Your task to perform on an android device: search for starred emails in the gmail app Image 0: 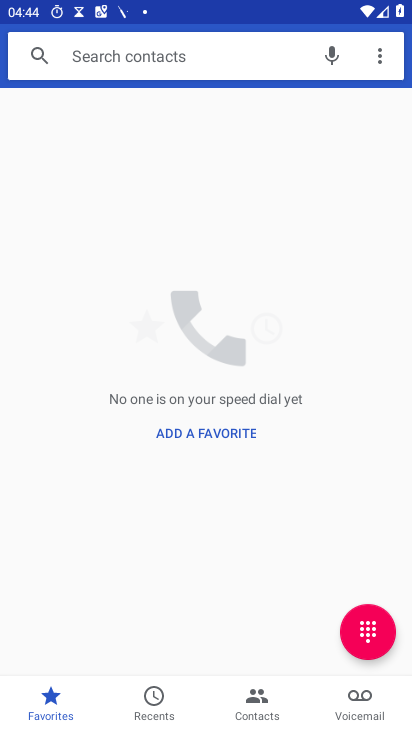
Step 0: press home button
Your task to perform on an android device: search for starred emails in the gmail app Image 1: 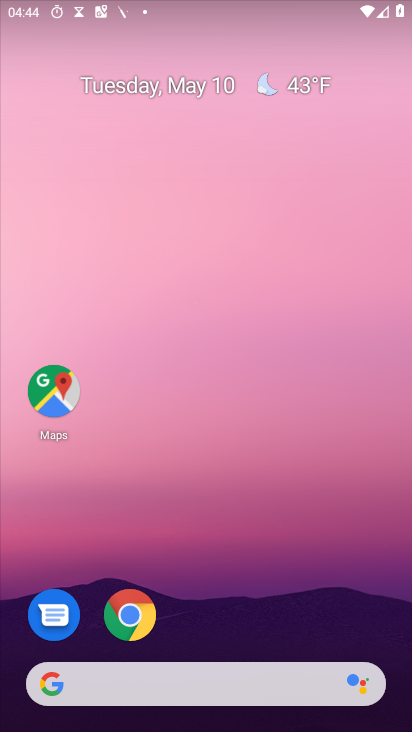
Step 1: drag from (301, 653) to (328, 22)
Your task to perform on an android device: search for starred emails in the gmail app Image 2: 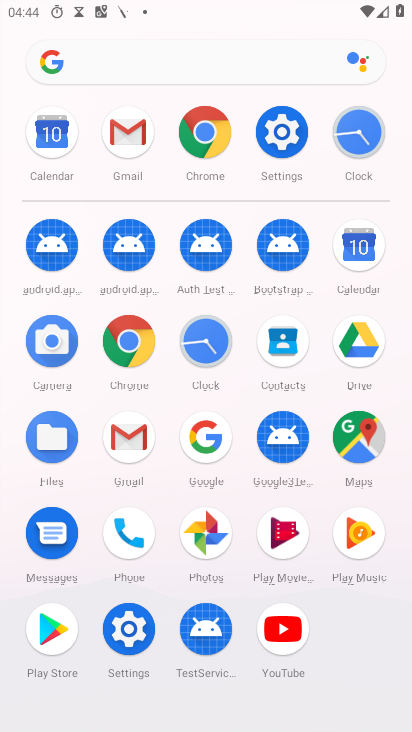
Step 2: click (143, 440)
Your task to perform on an android device: search for starred emails in the gmail app Image 3: 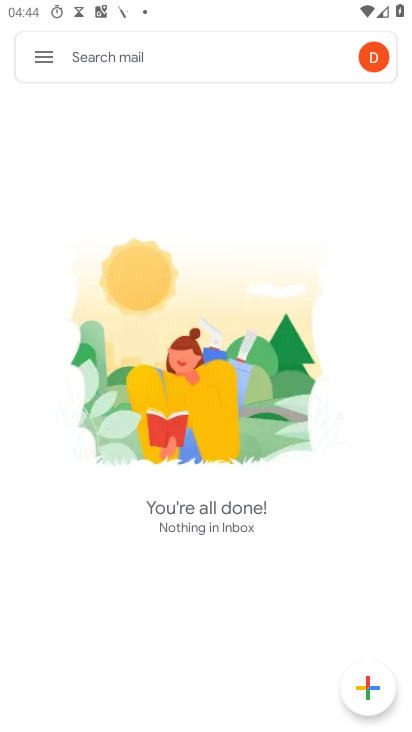
Step 3: click (24, 53)
Your task to perform on an android device: search for starred emails in the gmail app Image 4: 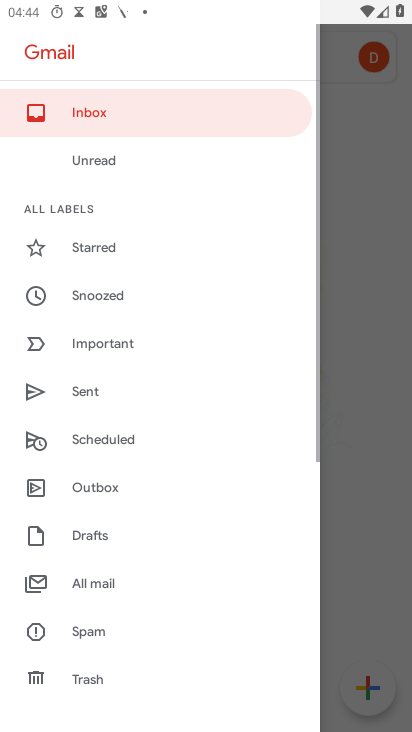
Step 4: click (121, 256)
Your task to perform on an android device: search for starred emails in the gmail app Image 5: 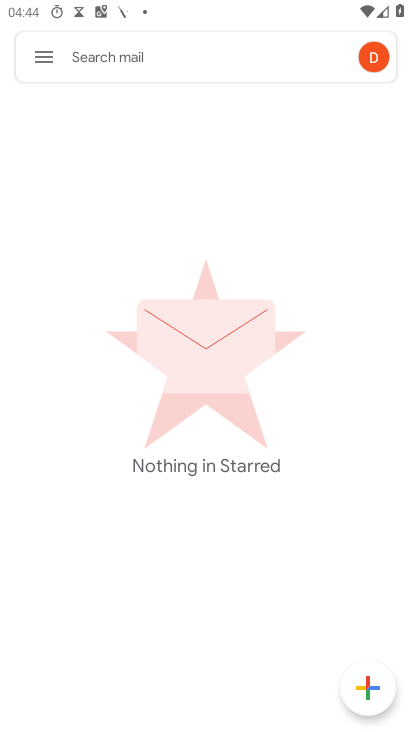
Step 5: task complete